Your task to perform on an android device: Go to Android settings Image 0: 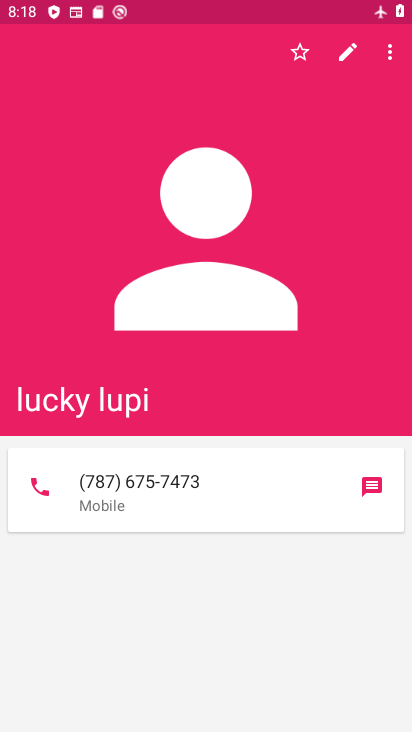
Step 0: press home button
Your task to perform on an android device: Go to Android settings Image 1: 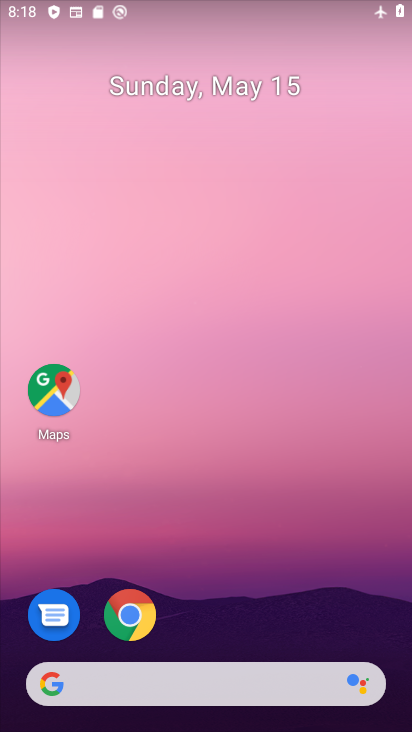
Step 1: drag from (133, 656) to (213, 315)
Your task to perform on an android device: Go to Android settings Image 2: 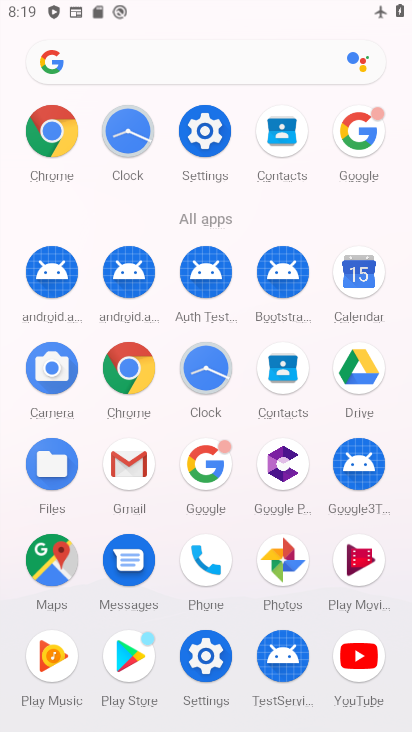
Step 2: click (214, 122)
Your task to perform on an android device: Go to Android settings Image 3: 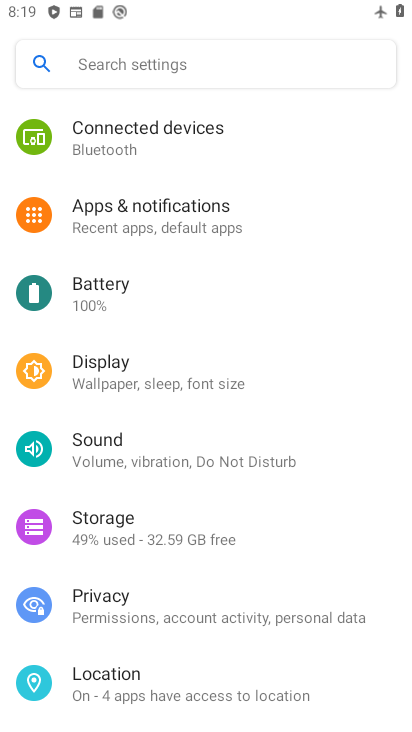
Step 3: task complete